Your task to perform on an android device: Open Yahoo.com Image 0: 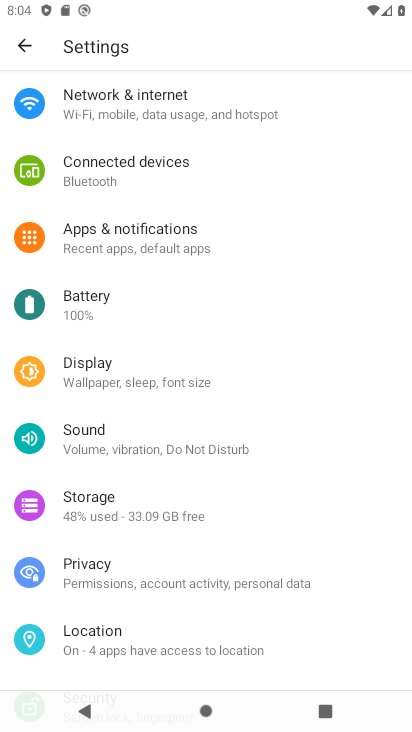
Step 0: press home button
Your task to perform on an android device: Open Yahoo.com Image 1: 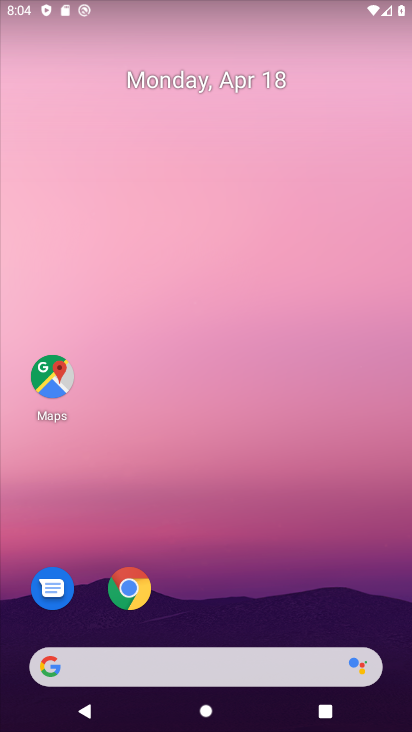
Step 1: click (124, 587)
Your task to perform on an android device: Open Yahoo.com Image 2: 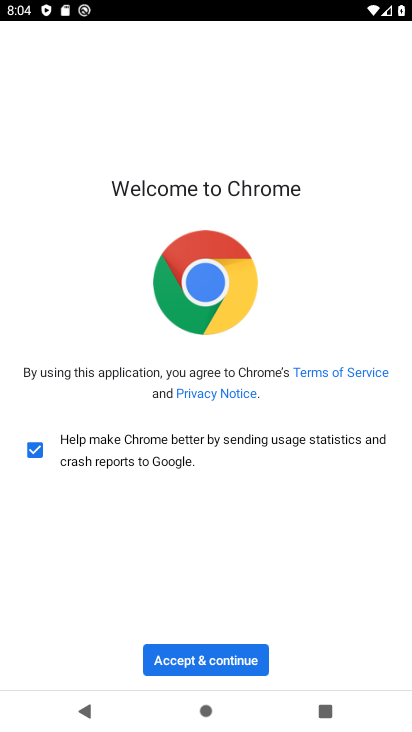
Step 2: click (194, 652)
Your task to perform on an android device: Open Yahoo.com Image 3: 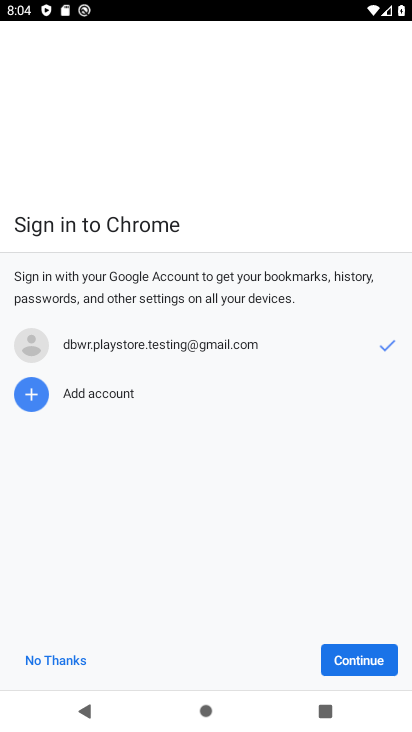
Step 3: click (366, 656)
Your task to perform on an android device: Open Yahoo.com Image 4: 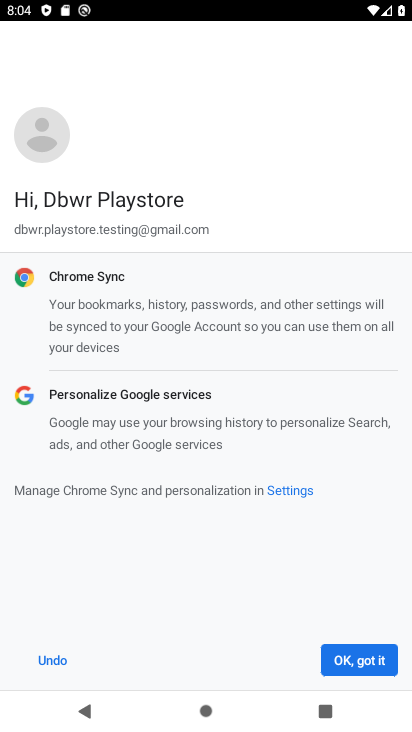
Step 4: click (366, 656)
Your task to perform on an android device: Open Yahoo.com Image 5: 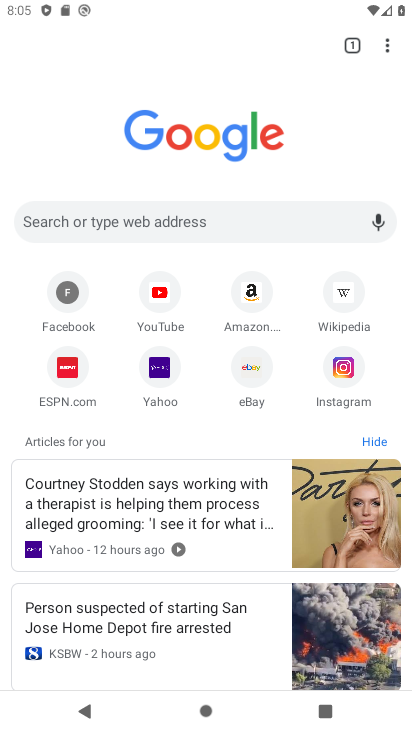
Step 5: click (89, 220)
Your task to perform on an android device: Open Yahoo.com Image 6: 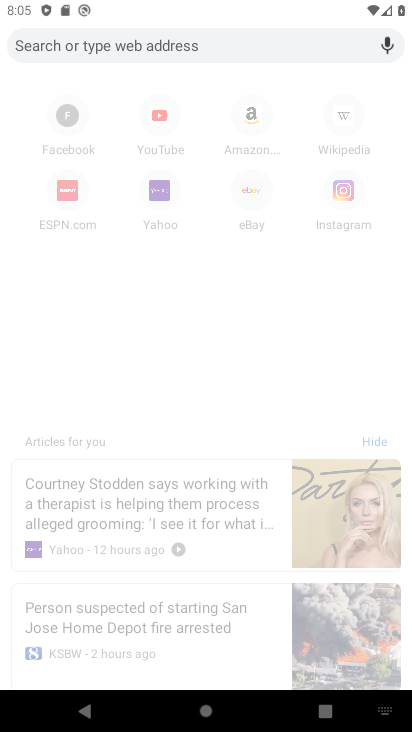
Step 6: click (158, 190)
Your task to perform on an android device: Open Yahoo.com Image 7: 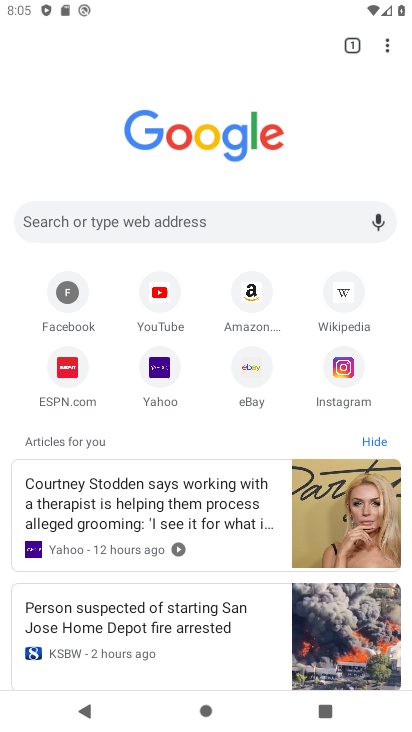
Step 7: click (155, 368)
Your task to perform on an android device: Open Yahoo.com Image 8: 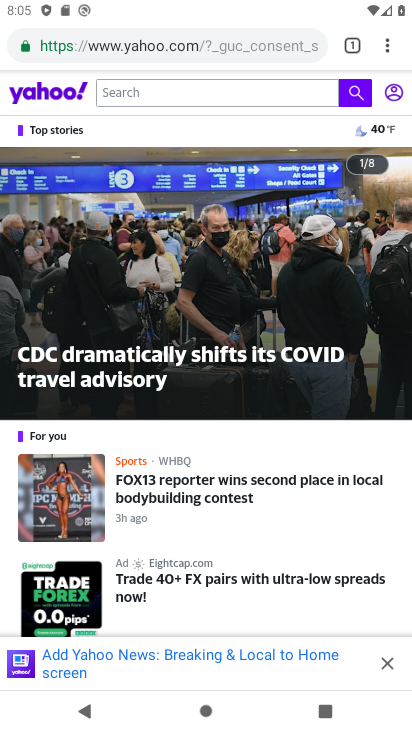
Step 8: task complete